Your task to perform on an android device: turn on wifi Image 0: 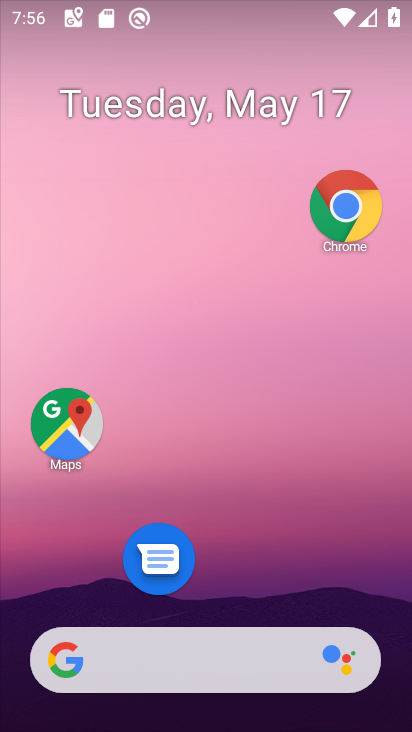
Step 0: drag from (180, 541) to (217, 111)
Your task to perform on an android device: turn on wifi Image 1: 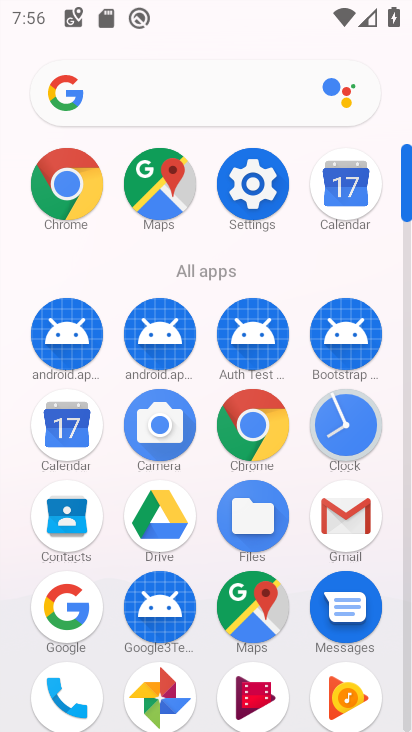
Step 1: click (242, 180)
Your task to perform on an android device: turn on wifi Image 2: 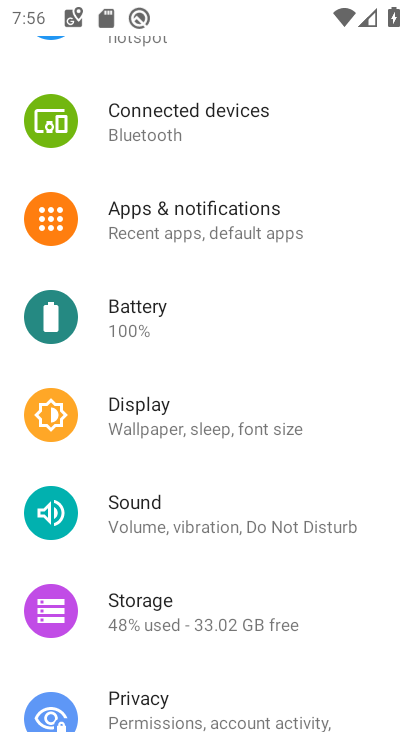
Step 2: drag from (192, 248) to (51, 724)
Your task to perform on an android device: turn on wifi Image 3: 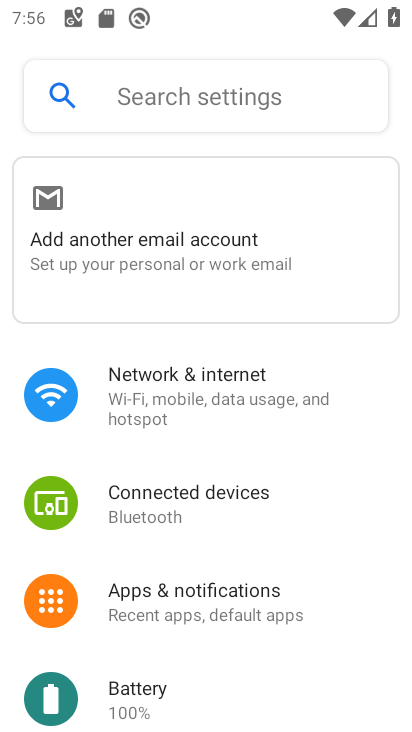
Step 3: click (181, 399)
Your task to perform on an android device: turn on wifi Image 4: 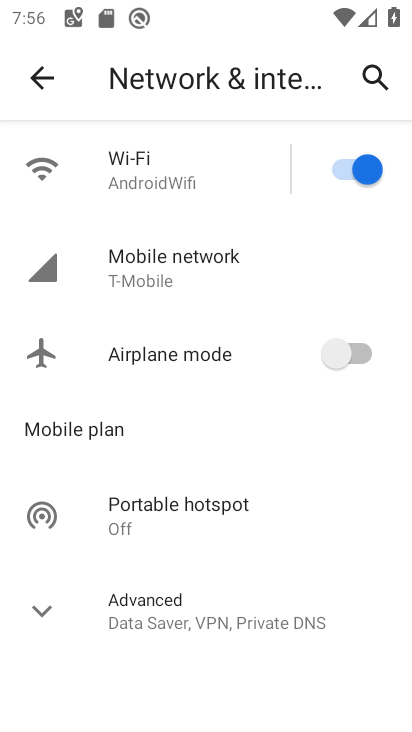
Step 4: click (180, 156)
Your task to perform on an android device: turn on wifi Image 5: 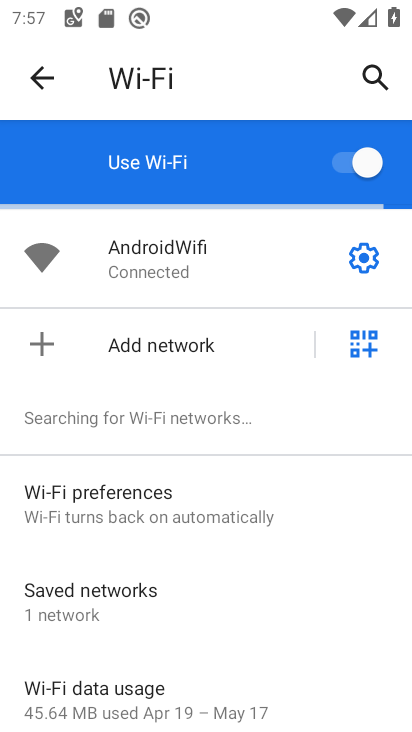
Step 5: task complete